Your task to perform on an android device: turn off picture-in-picture Image 0: 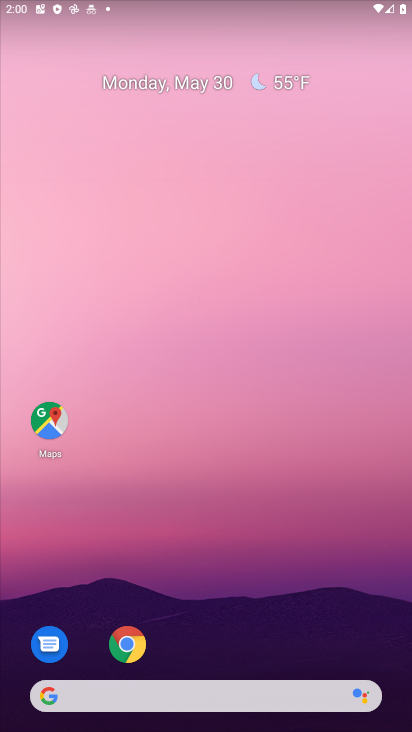
Step 0: drag from (316, 656) to (193, 77)
Your task to perform on an android device: turn off picture-in-picture Image 1: 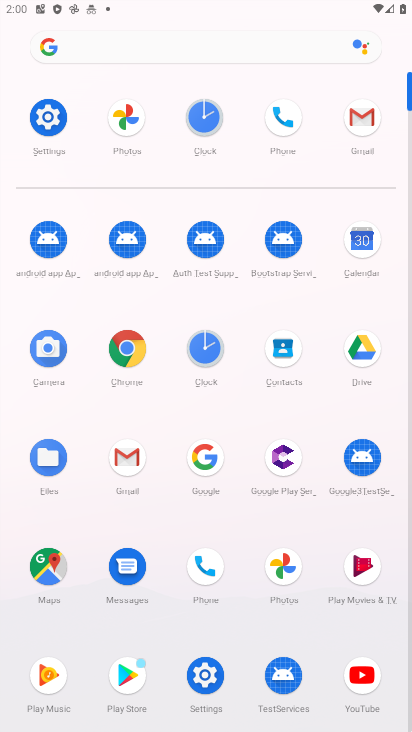
Step 1: click (37, 134)
Your task to perform on an android device: turn off picture-in-picture Image 2: 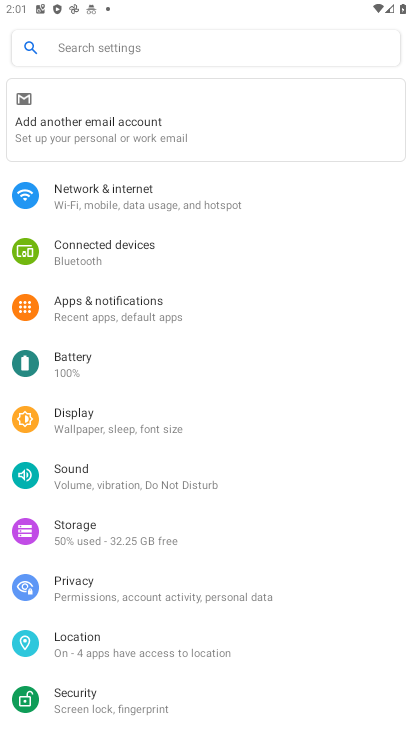
Step 2: task complete